Your task to perform on an android device: Open eBay Image 0: 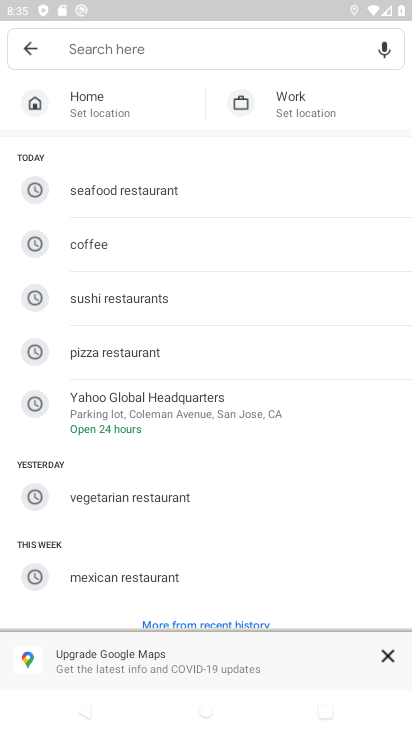
Step 0: press home button
Your task to perform on an android device: Open eBay Image 1: 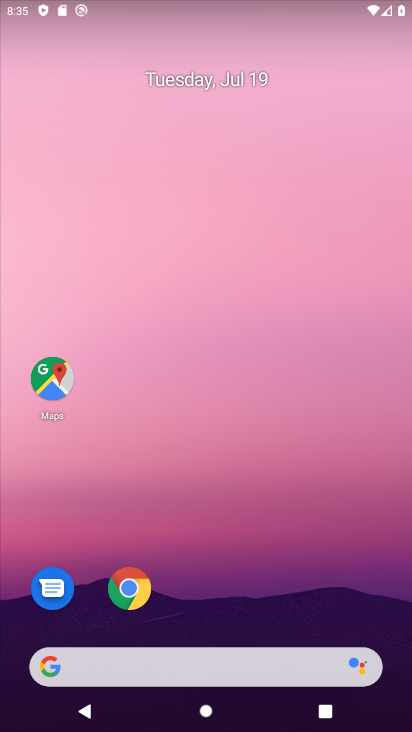
Step 1: drag from (311, 369) to (0, 167)
Your task to perform on an android device: Open eBay Image 2: 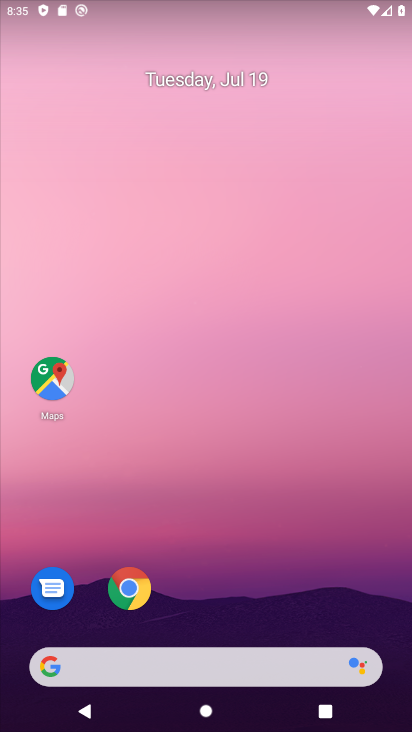
Step 2: drag from (263, 588) to (3, 696)
Your task to perform on an android device: Open eBay Image 3: 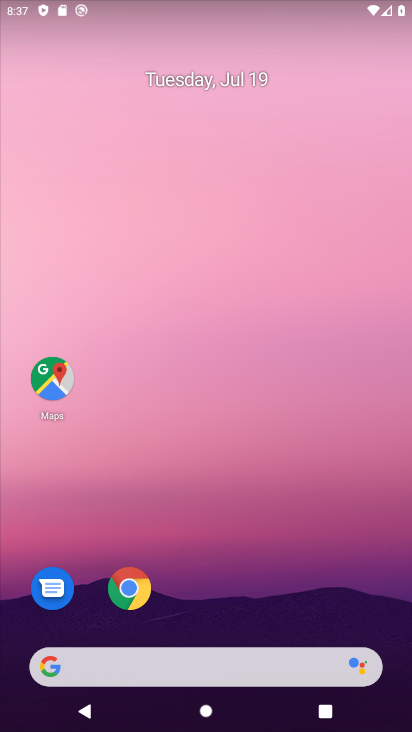
Step 3: drag from (267, 553) to (335, 0)
Your task to perform on an android device: Open eBay Image 4: 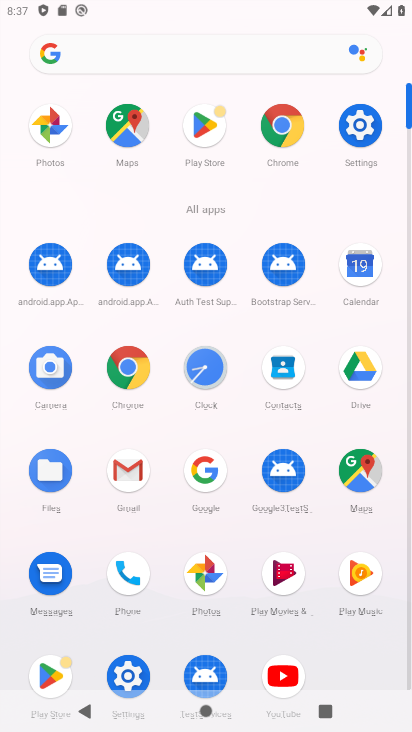
Step 4: click (286, 144)
Your task to perform on an android device: Open eBay Image 5: 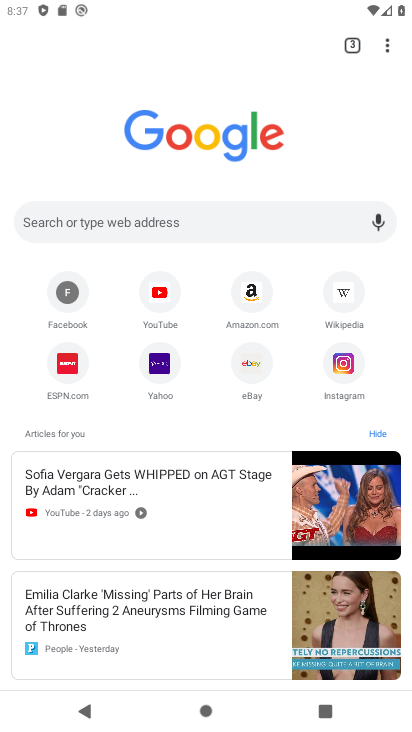
Step 5: click (250, 373)
Your task to perform on an android device: Open eBay Image 6: 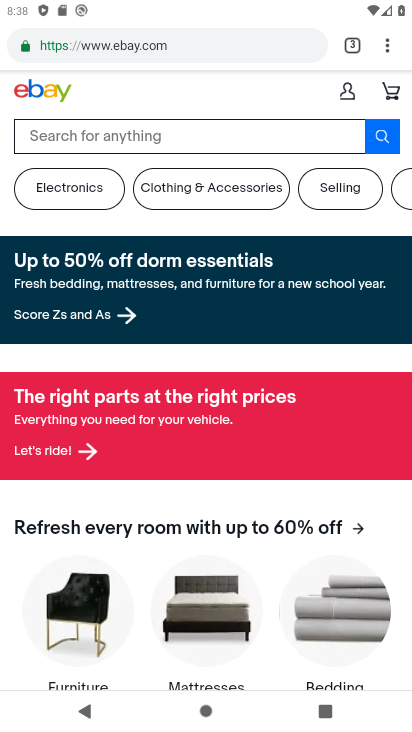
Step 6: task complete